Your task to perform on an android device: star an email in the gmail app Image 0: 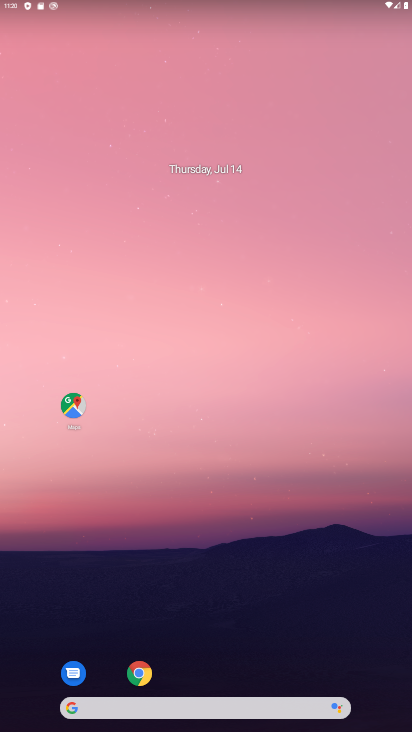
Step 0: drag from (336, 655) to (276, 85)
Your task to perform on an android device: star an email in the gmail app Image 1: 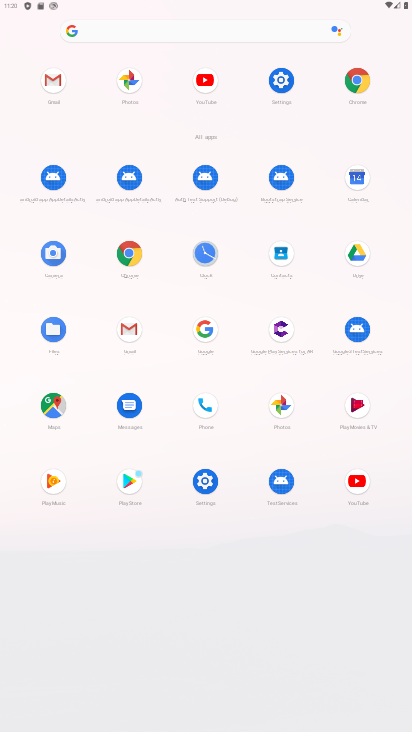
Step 1: click (123, 330)
Your task to perform on an android device: star an email in the gmail app Image 2: 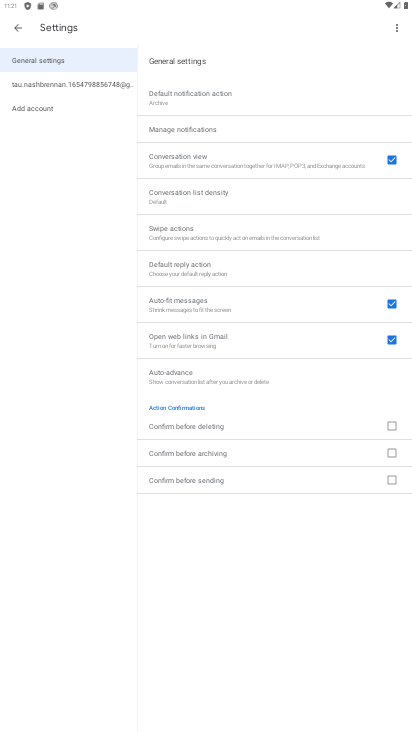
Step 2: click (14, 27)
Your task to perform on an android device: star an email in the gmail app Image 3: 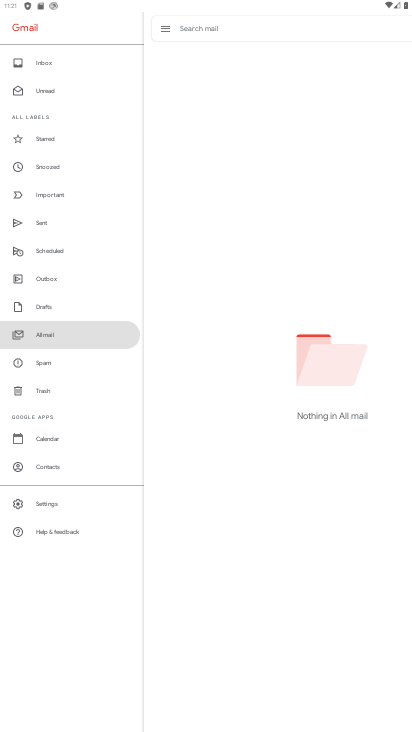
Step 3: task complete